Your task to perform on an android device: turn on sleep mode Image 0: 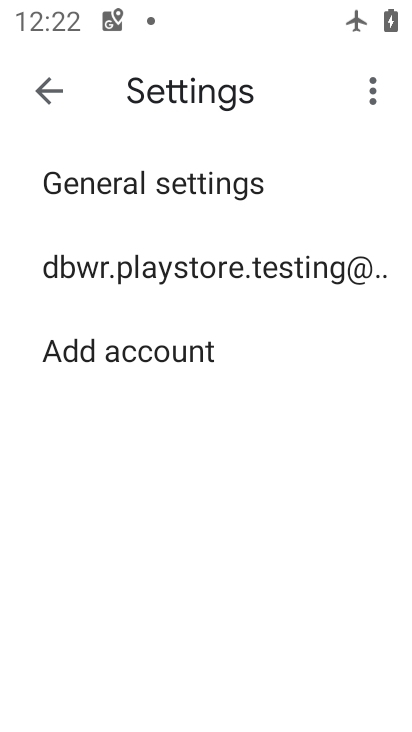
Step 0: click (53, 86)
Your task to perform on an android device: turn on sleep mode Image 1: 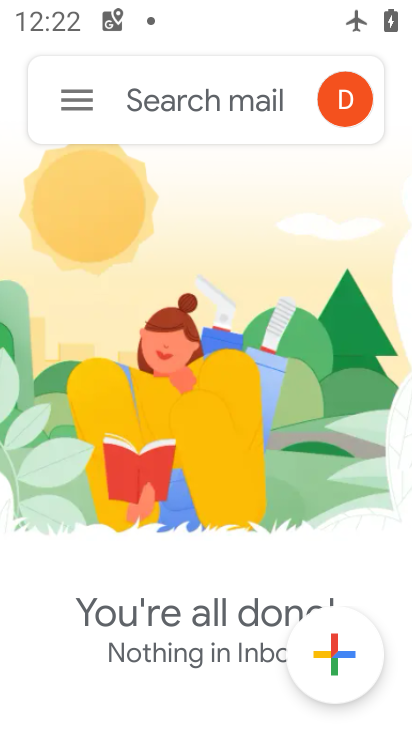
Step 1: press home button
Your task to perform on an android device: turn on sleep mode Image 2: 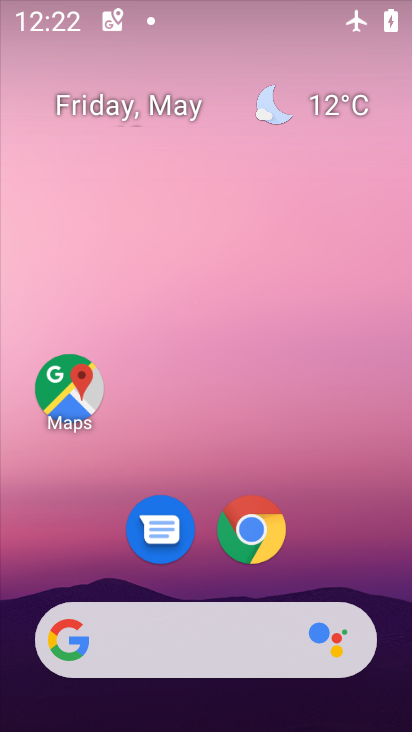
Step 2: drag from (220, 511) to (214, 118)
Your task to perform on an android device: turn on sleep mode Image 3: 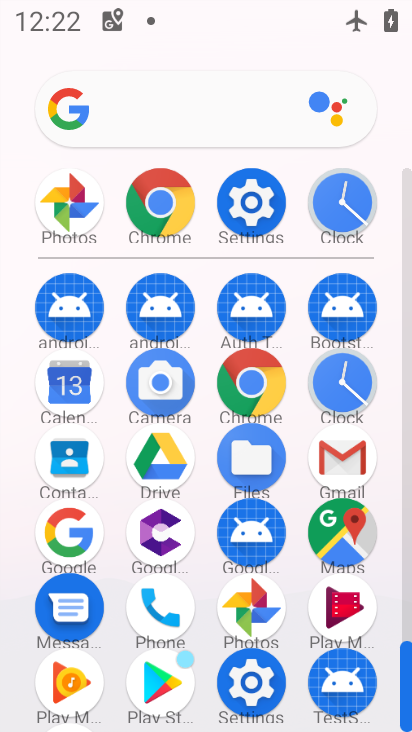
Step 3: click (250, 214)
Your task to perform on an android device: turn on sleep mode Image 4: 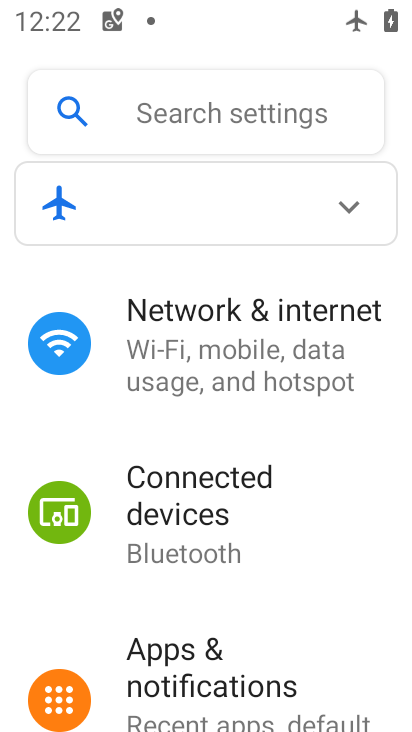
Step 4: task complete